Your task to perform on an android device: Set the phone to "Do not disturb". Image 0: 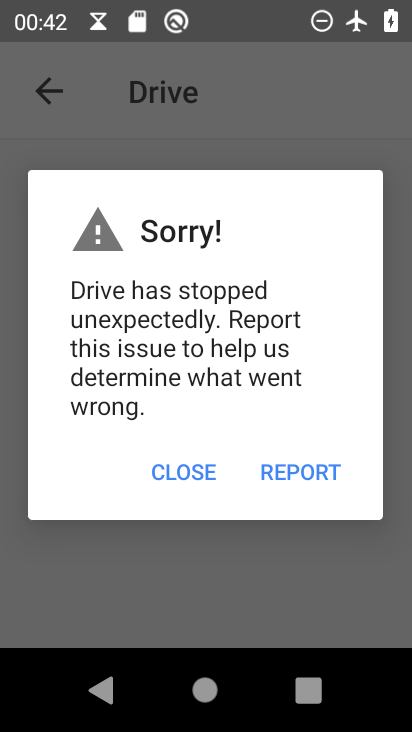
Step 0: press home button
Your task to perform on an android device: Set the phone to "Do not disturb". Image 1: 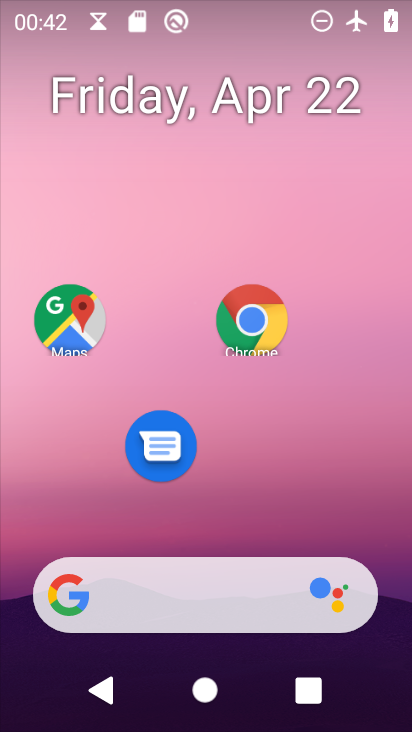
Step 1: drag from (193, 445) to (151, 83)
Your task to perform on an android device: Set the phone to "Do not disturb". Image 2: 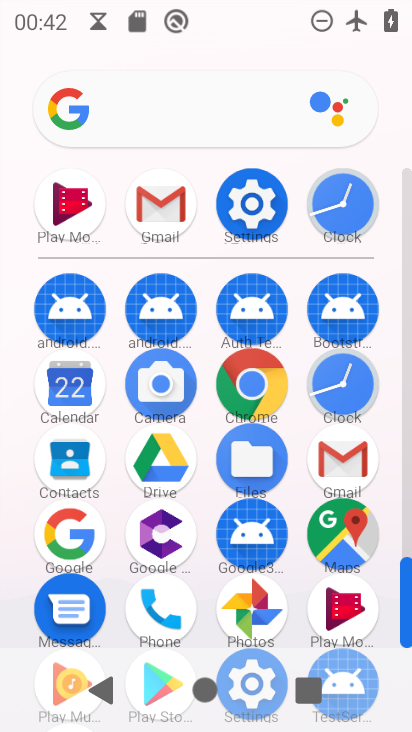
Step 2: click (255, 200)
Your task to perform on an android device: Set the phone to "Do not disturb". Image 3: 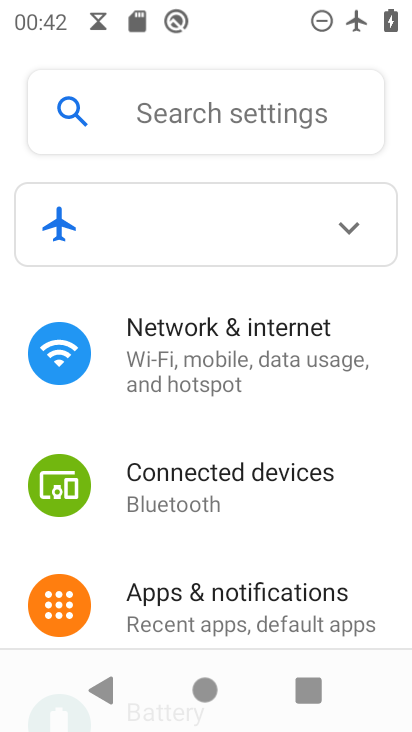
Step 3: drag from (196, 548) to (243, 239)
Your task to perform on an android device: Set the phone to "Do not disturb". Image 4: 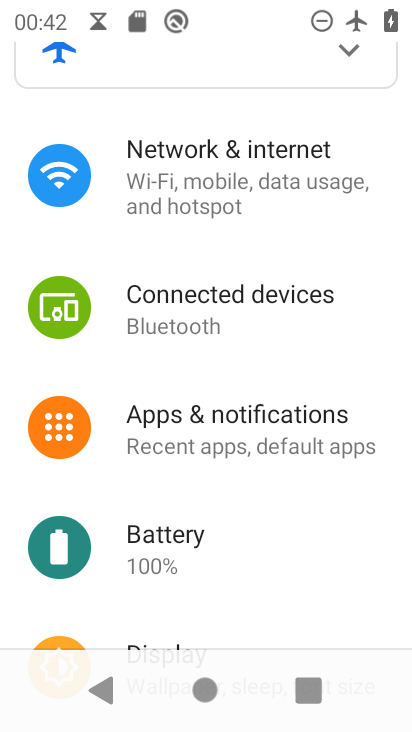
Step 4: drag from (211, 437) to (281, 160)
Your task to perform on an android device: Set the phone to "Do not disturb". Image 5: 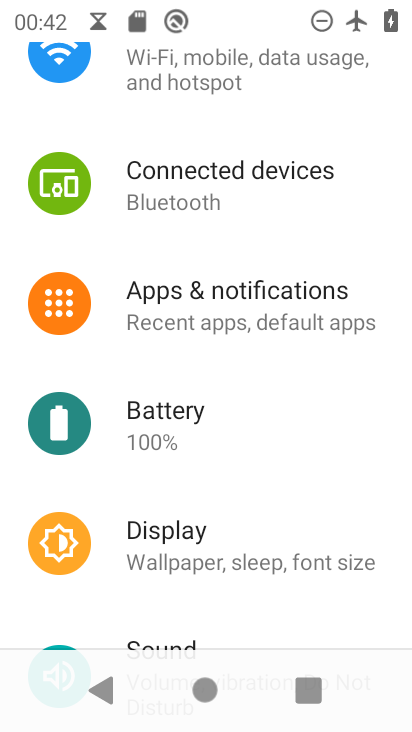
Step 5: drag from (232, 588) to (244, 190)
Your task to perform on an android device: Set the phone to "Do not disturb". Image 6: 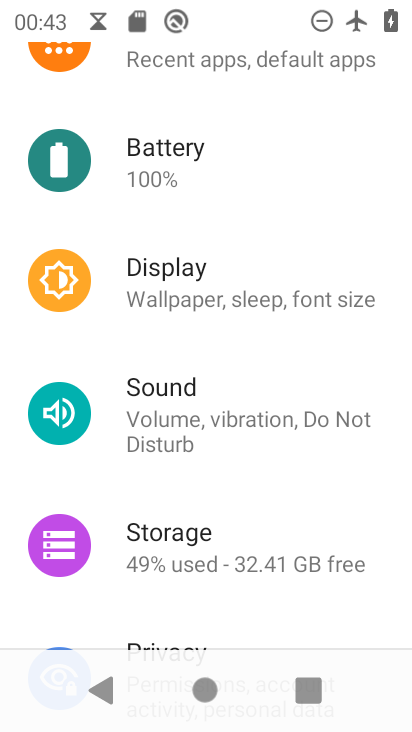
Step 6: drag from (217, 566) to (266, 203)
Your task to perform on an android device: Set the phone to "Do not disturb". Image 7: 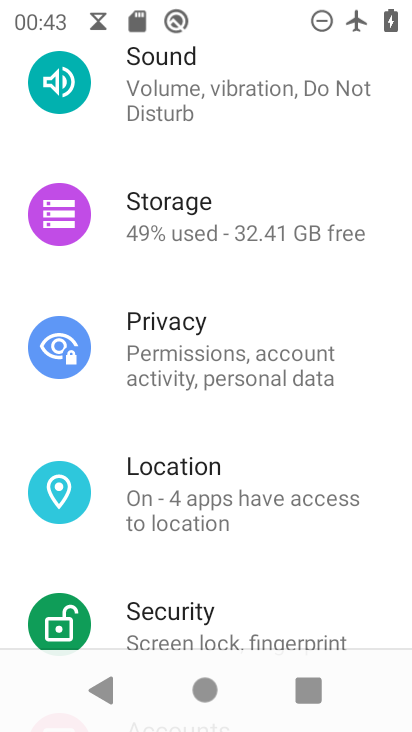
Step 7: drag from (246, 171) to (304, 608)
Your task to perform on an android device: Set the phone to "Do not disturb". Image 8: 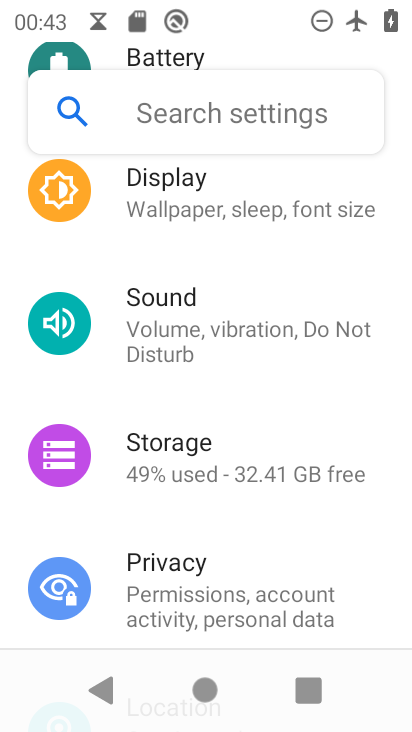
Step 8: drag from (272, 219) to (275, 701)
Your task to perform on an android device: Set the phone to "Do not disturb". Image 9: 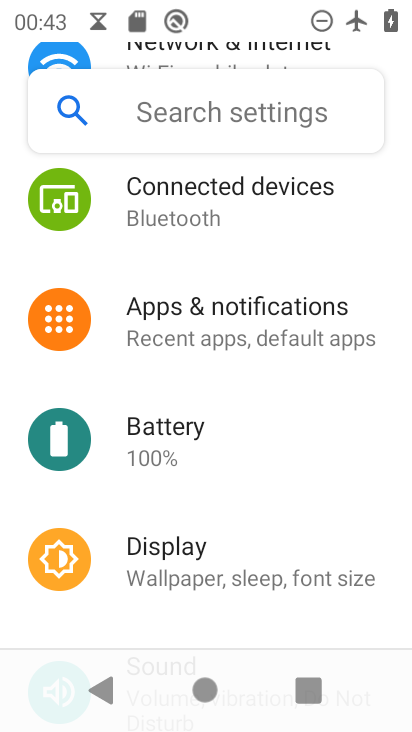
Step 9: click (233, 301)
Your task to perform on an android device: Set the phone to "Do not disturb". Image 10: 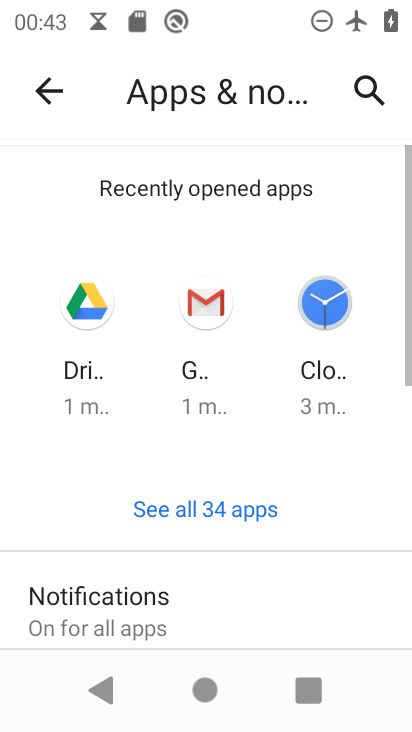
Step 10: click (167, 608)
Your task to perform on an android device: Set the phone to "Do not disturb". Image 11: 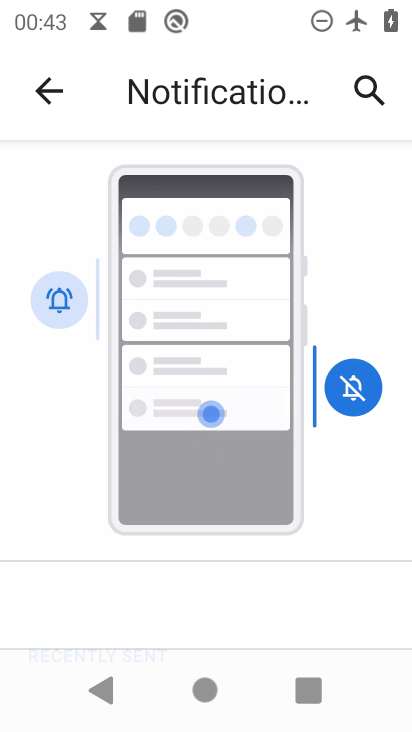
Step 11: drag from (199, 561) to (385, 198)
Your task to perform on an android device: Set the phone to "Do not disturb". Image 12: 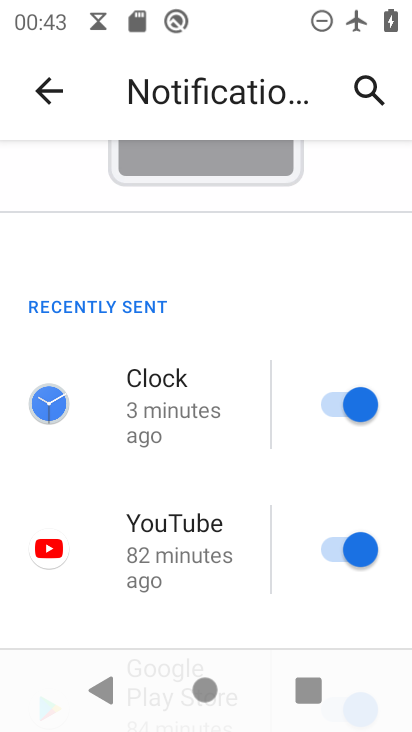
Step 12: drag from (267, 520) to (298, 188)
Your task to perform on an android device: Set the phone to "Do not disturb". Image 13: 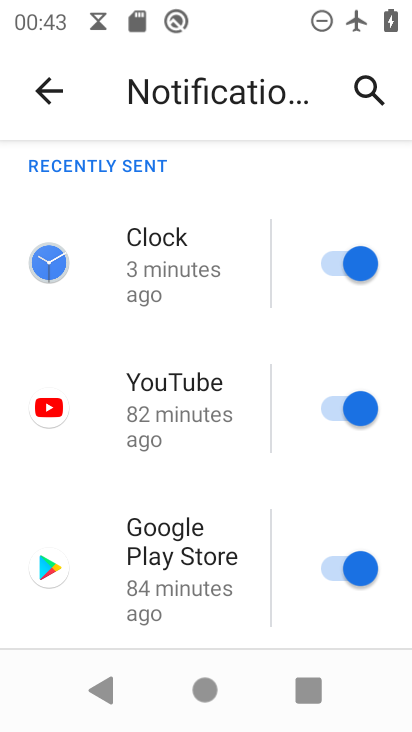
Step 13: drag from (240, 578) to (284, 221)
Your task to perform on an android device: Set the phone to "Do not disturb". Image 14: 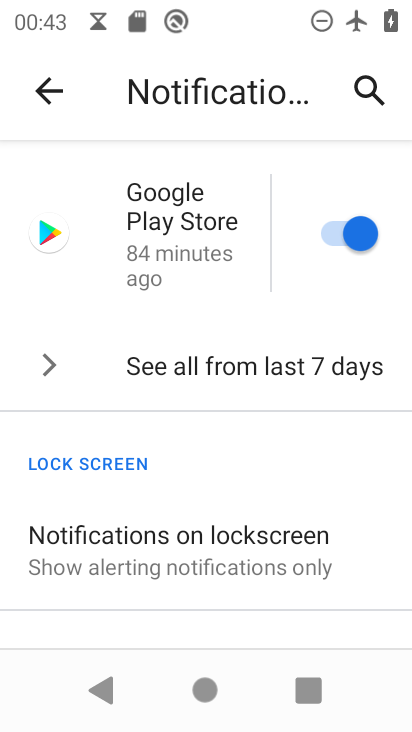
Step 14: drag from (199, 510) to (205, 248)
Your task to perform on an android device: Set the phone to "Do not disturb". Image 15: 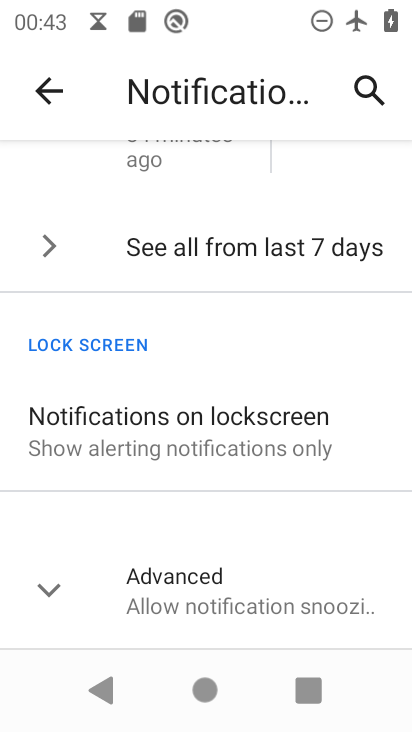
Step 15: click (162, 599)
Your task to perform on an android device: Set the phone to "Do not disturb". Image 16: 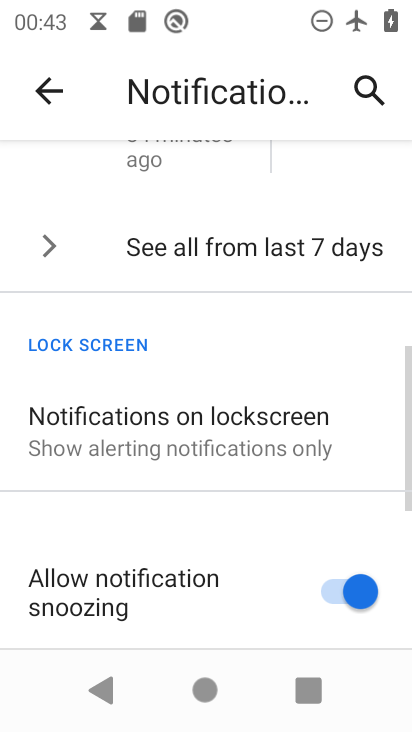
Step 16: drag from (245, 526) to (273, 215)
Your task to perform on an android device: Set the phone to "Do not disturb". Image 17: 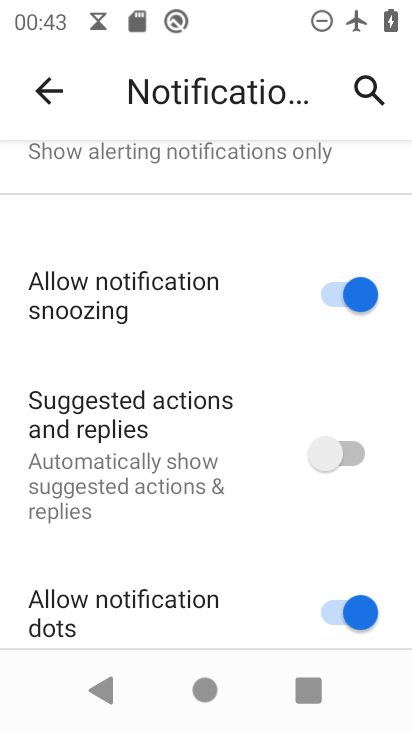
Step 17: drag from (206, 588) to (265, 107)
Your task to perform on an android device: Set the phone to "Do not disturb". Image 18: 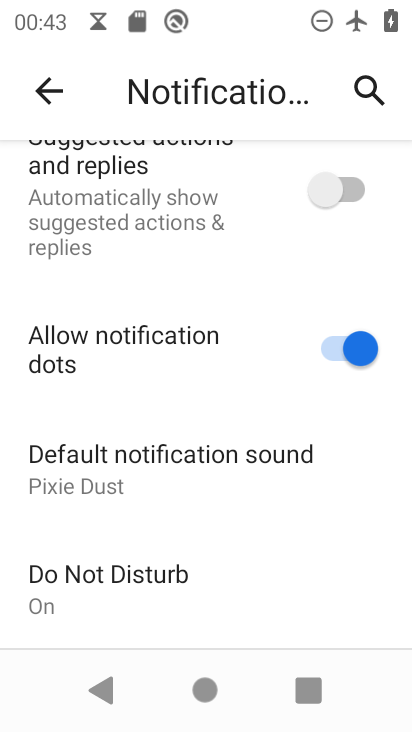
Step 18: drag from (229, 598) to (229, 228)
Your task to perform on an android device: Set the phone to "Do not disturb". Image 19: 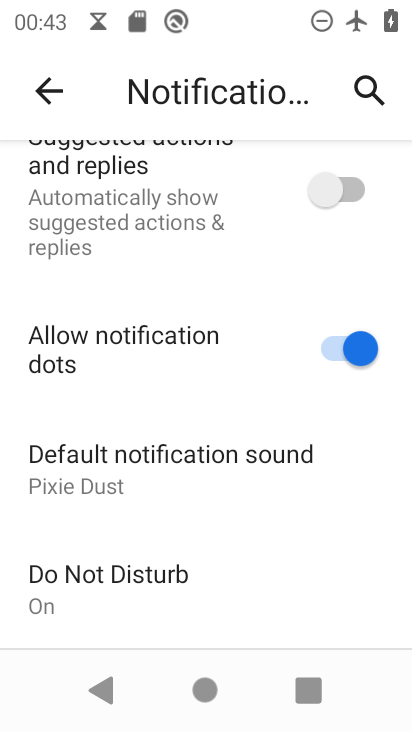
Step 19: click (161, 568)
Your task to perform on an android device: Set the phone to "Do not disturb". Image 20: 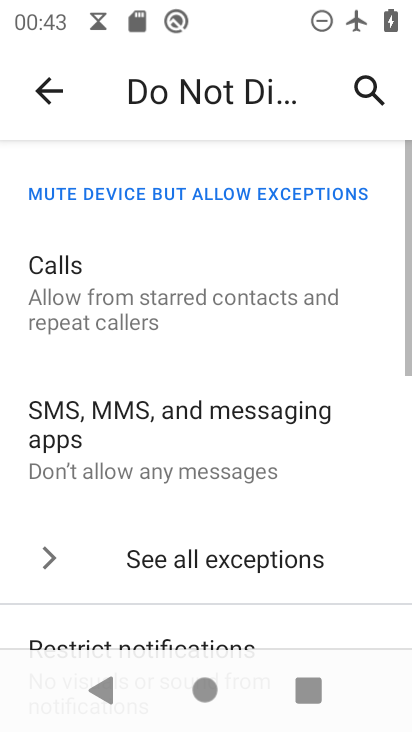
Step 20: drag from (175, 543) to (264, 124)
Your task to perform on an android device: Set the phone to "Do not disturb". Image 21: 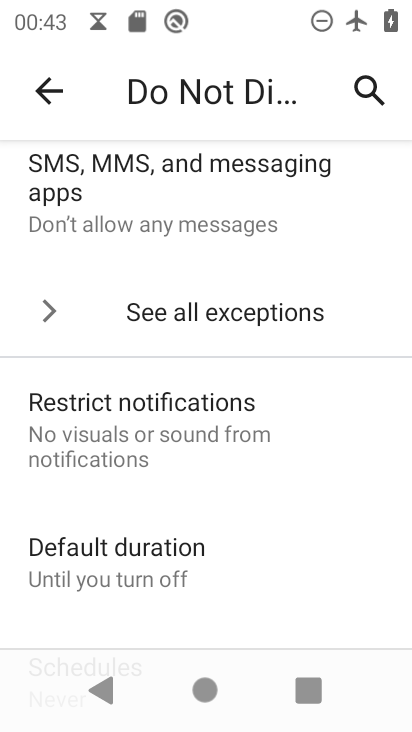
Step 21: drag from (205, 590) to (284, 151)
Your task to perform on an android device: Set the phone to "Do not disturb". Image 22: 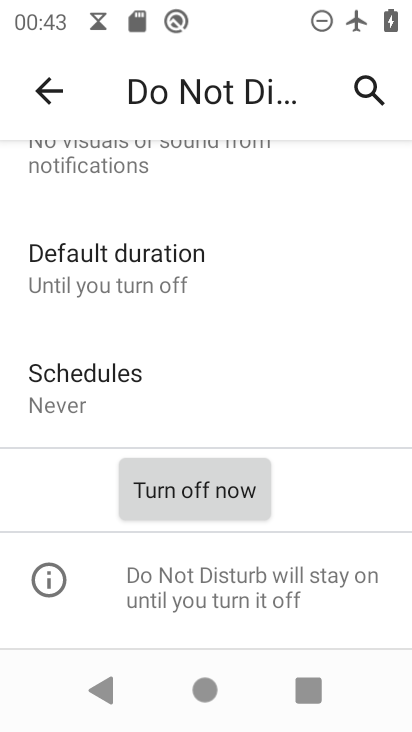
Step 22: click (183, 501)
Your task to perform on an android device: Set the phone to "Do not disturb". Image 23: 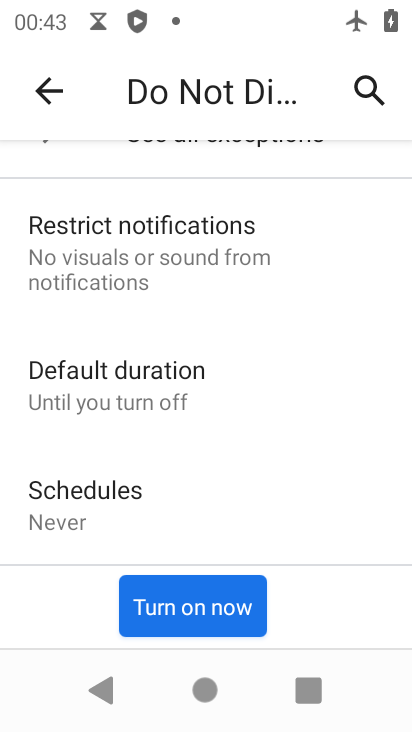
Step 23: click (182, 592)
Your task to perform on an android device: Set the phone to "Do not disturb". Image 24: 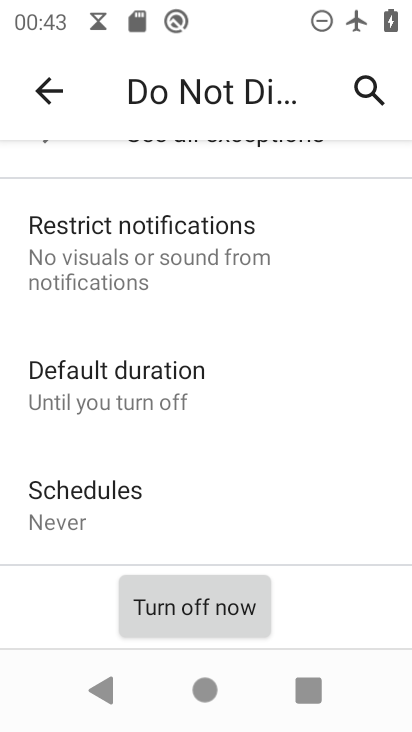
Step 24: task complete